Your task to perform on an android device: Open eBay Image 0: 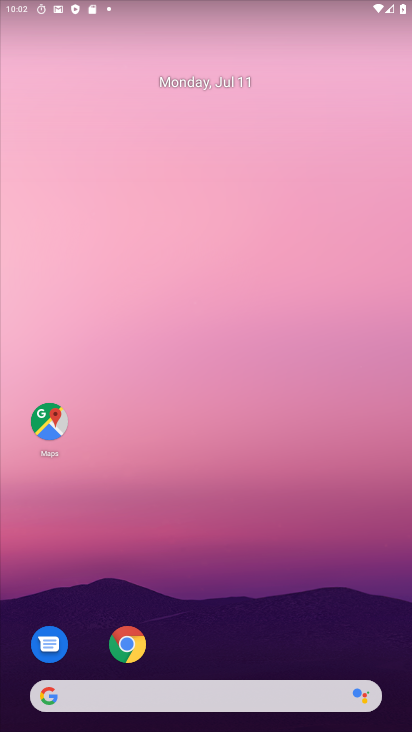
Step 0: drag from (178, 644) to (210, 157)
Your task to perform on an android device: Open eBay Image 1: 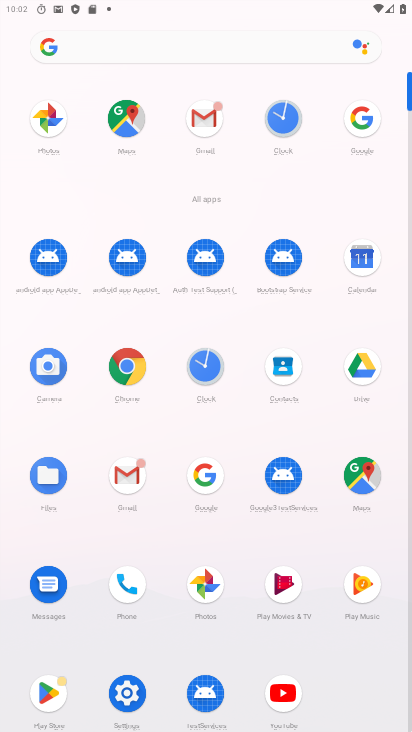
Step 1: click (208, 470)
Your task to perform on an android device: Open eBay Image 2: 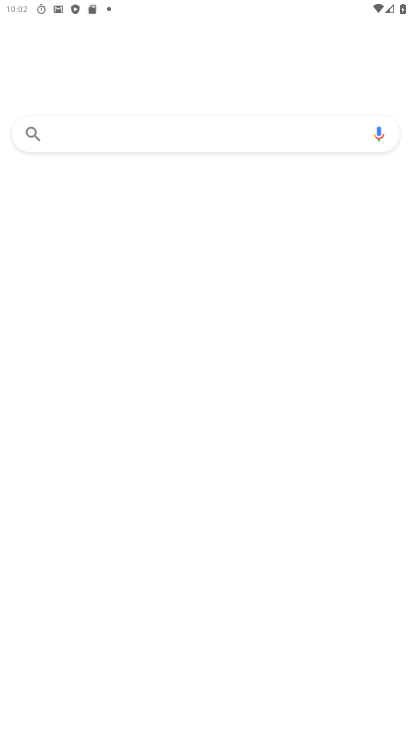
Step 2: click (207, 476)
Your task to perform on an android device: Open eBay Image 3: 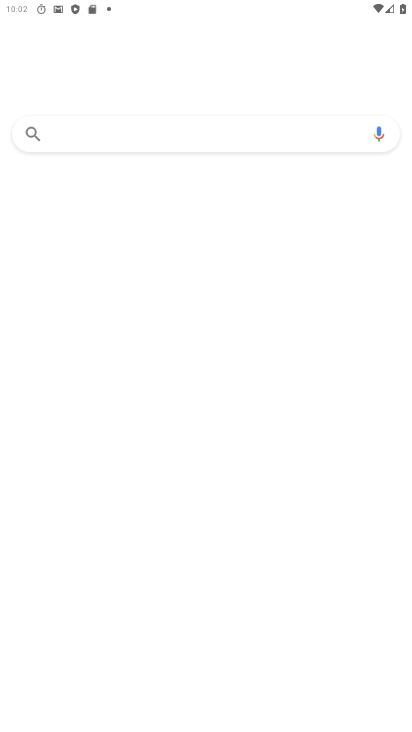
Step 3: click (132, 135)
Your task to perform on an android device: Open eBay Image 4: 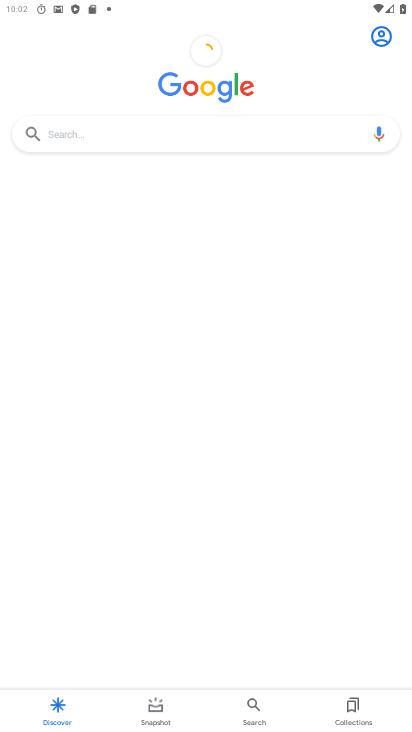
Step 4: click (84, 128)
Your task to perform on an android device: Open eBay Image 5: 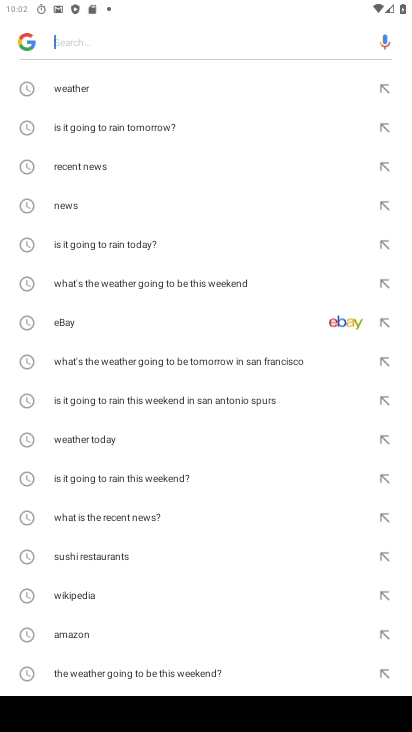
Step 5: click (132, 323)
Your task to perform on an android device: Open eBay Image 6: 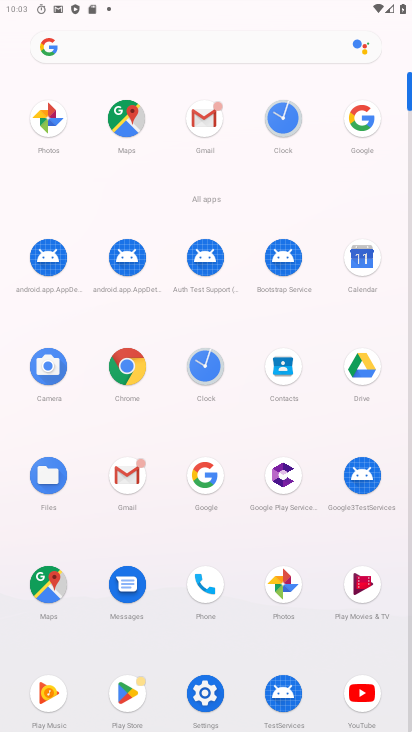
Step 6: click (369, 125)
Your task to perform on an android device: Open eBay Image 7: 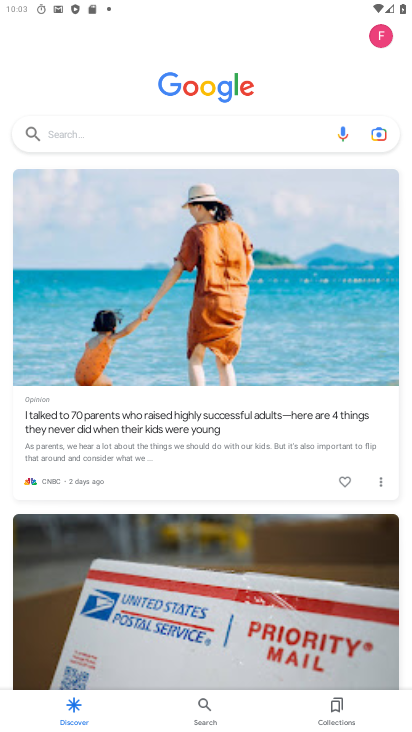
Step 7: click (188, 133)
Your task to perform on an android device: Open eBay Image 8: 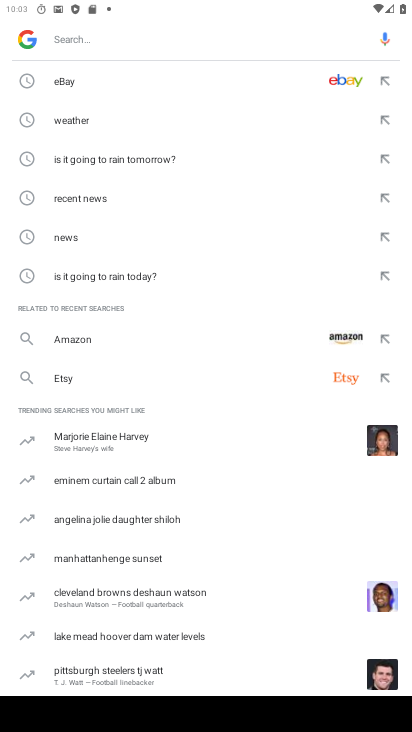
Step 8: click (104, 85)
Your task to perform on an android device: Open eBay Image 9: 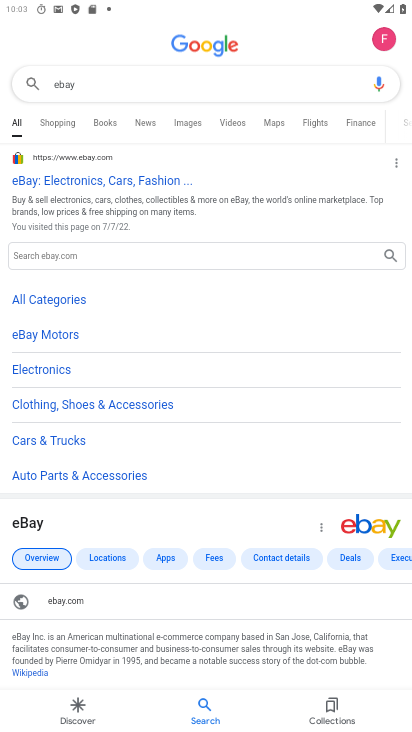
Step 9: click (113, 180)
Your task to perform on an android device: Open eBay Image 10: 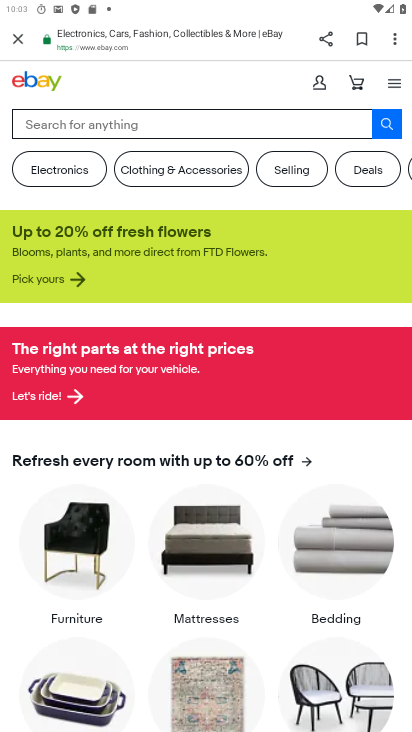
Step 10: task complete